Your task to perform on an android device: Open calendar and show me the third week of next month Image 0: 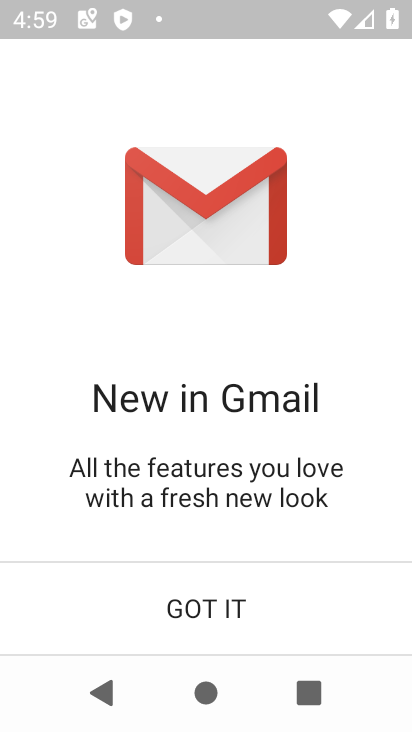
Step 0: press home button
Your task to perform on an android device: Open calendar and show me the third week of next month Image 1: 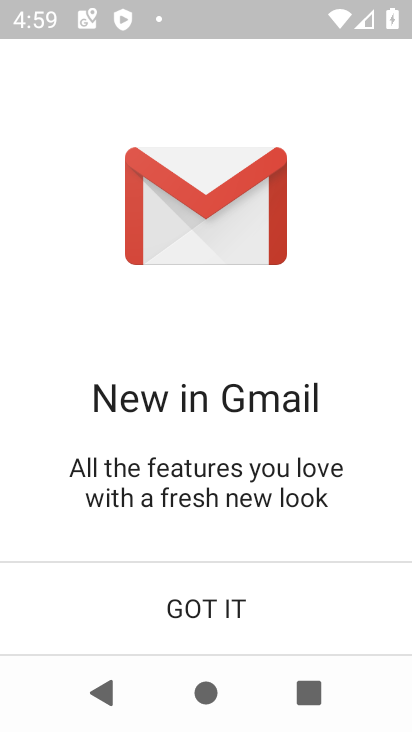
Step 1: press home button
Your task to perform on an android device: Open calendar and show me the third week of next month Image 2: 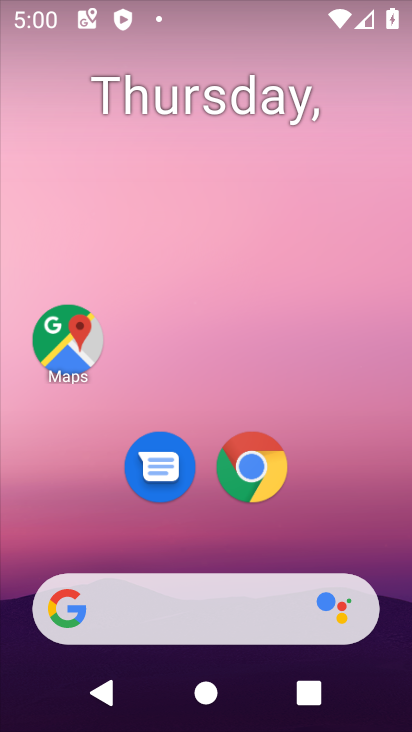
Step 2: drag from (354, 521) to (297, 29)
Your task to perform on an android device: Open calendar and show me the third week of next month Image 3: 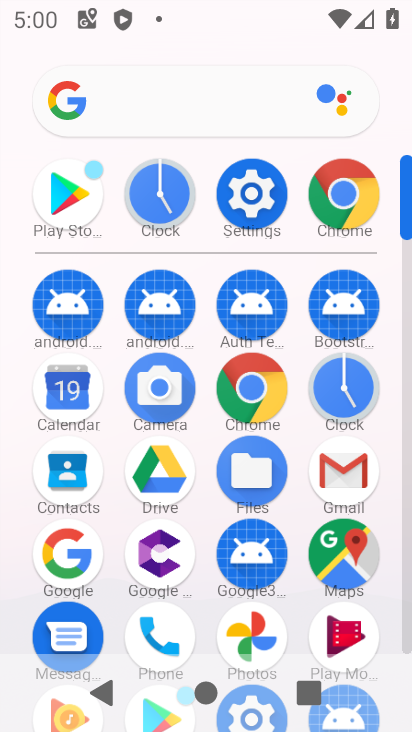
Step 3: click (72, 389)
Your task to perform on an android device: Open calendar and show me the third week of next month Image 4: 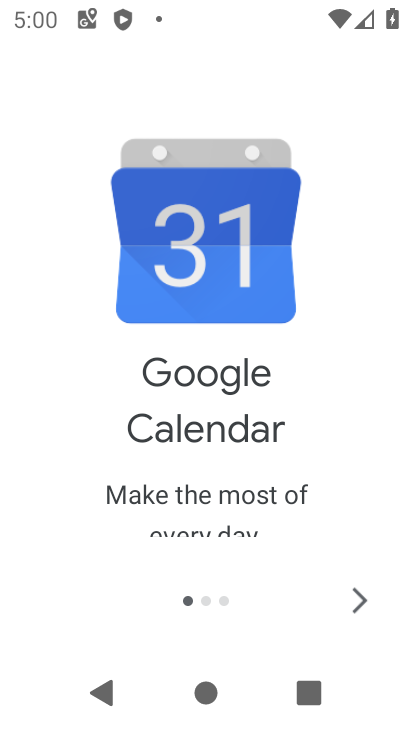
Step 4: click (364, 600)
Your task to perform on an android device: Open calendar and show me the third week of next month Image 5: 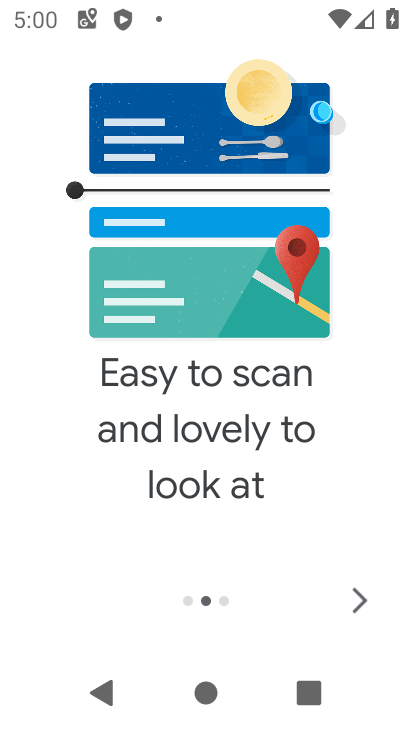
Step 5: click (364, 600)
Your task to perform on an android device: Open calendar and show me the third week of next month Image 6: 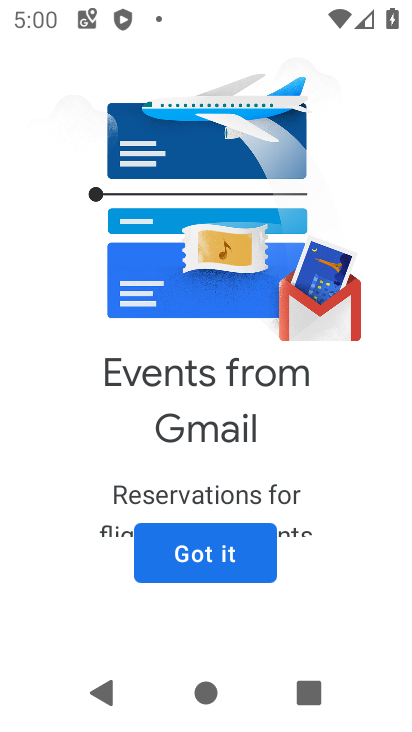
Step 6: click (229, 563)
Your task to perform on an android device: Open calendar and show me the third week of next month Image 7: 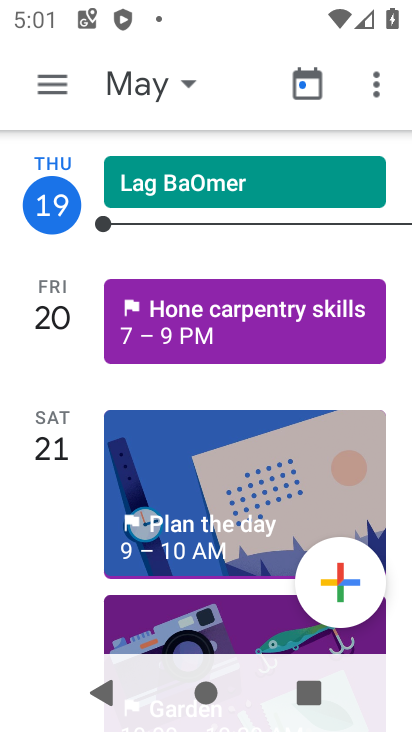
Step 7: click (138, 80)
Your task to perform on an android device: Open calendar and show me the third week of next month Image 8: 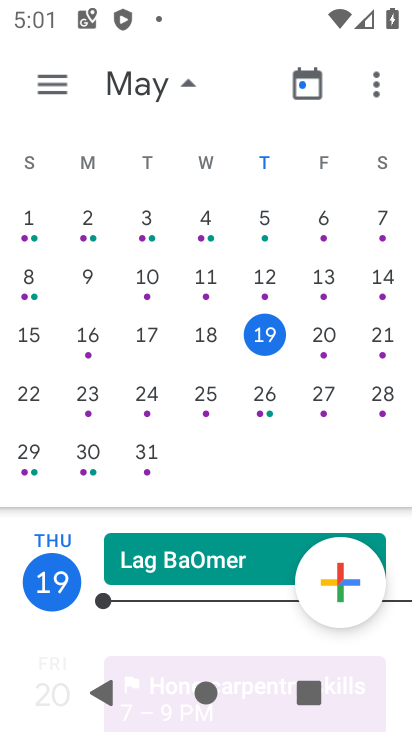
Step 8: drag from (398, 324) to (11, 311)
Your task to perform on an android device: Open calendar and show me the third week of next month Image 9: 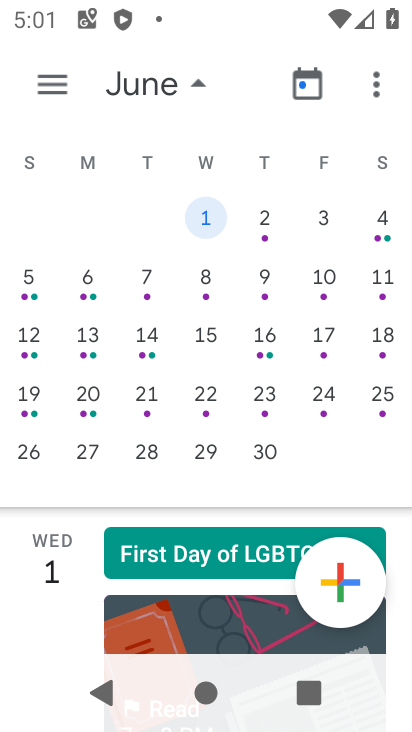
Step 9: click (205, 335)
Your task to perform on an android device: Open calendar and show me the third week of next month Image 10: 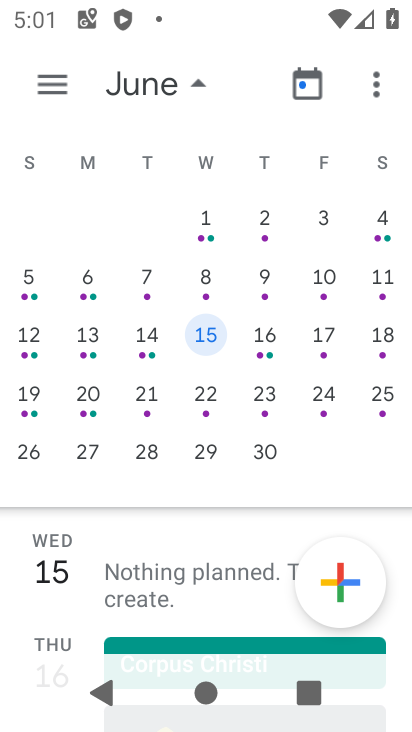
Step 10: task complete